Your task to perform on an android device: Go to Amazon Image 0: 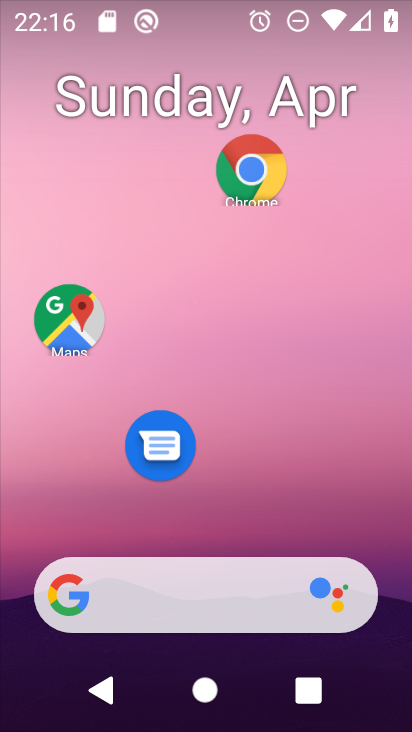
Step 0: press home button
Your task to perform on an android device: Go to Amazon Image 1: 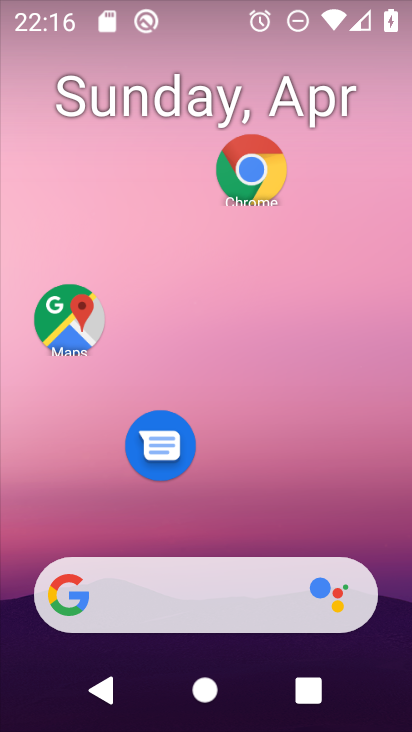
Step 1: click (251, 167)
Your task to perform on an android device: Go to Amazon Image 2: 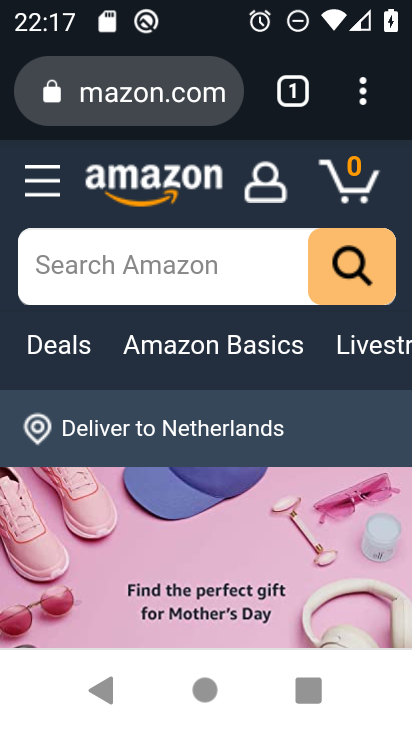
Step 2: task complete